Your task to perform on an android device: change the upload size in google photos Image 0: 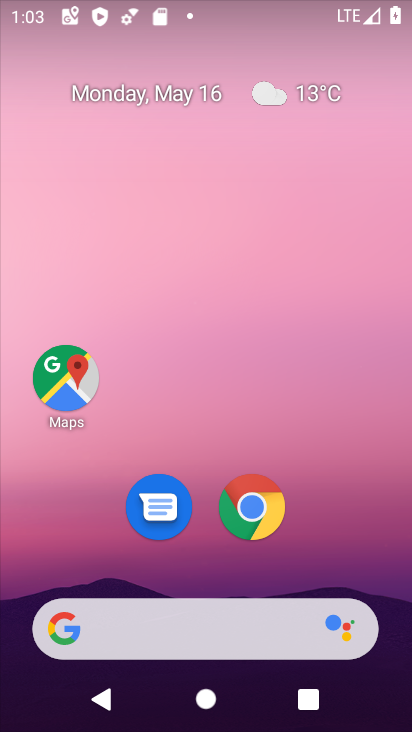
Step 0: drag from (336, 536) to (284, 52)
Your task to perform on an android device: change the upload size in google photos Image 1: 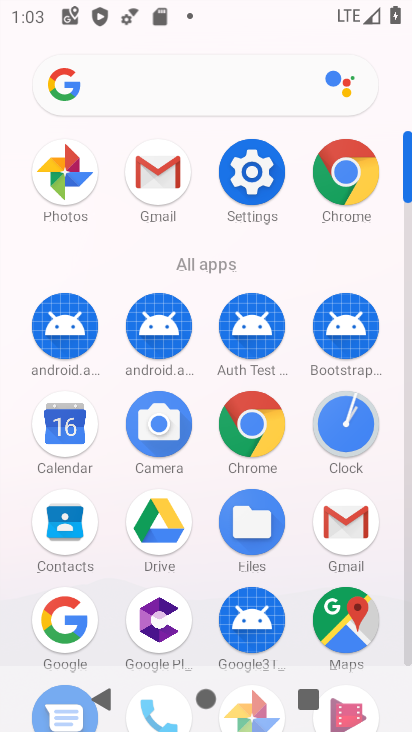
Step 1: click (80, 239)
Your task to perform on an android device: change the upload size in google photos Image 2: 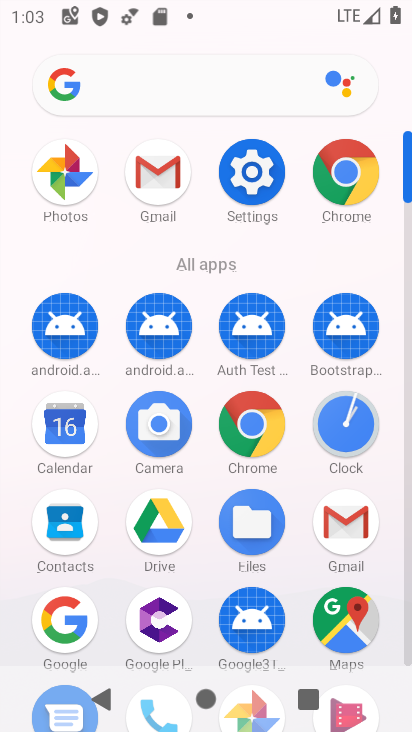
Step 2: click (74, 188)
Your task to perform on an android device: change the upload size in google photos Image 3: 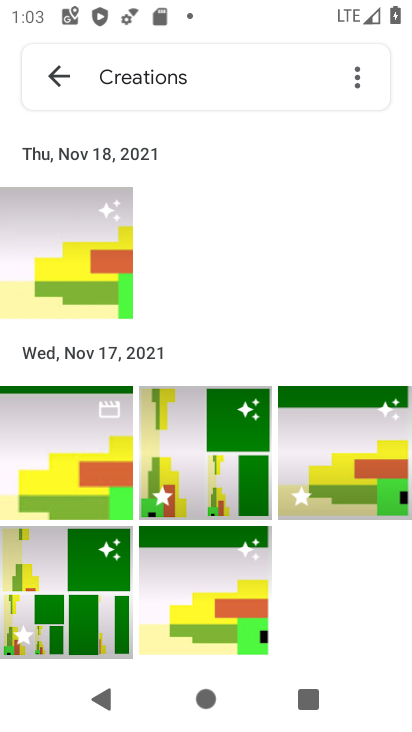
Step 3: click (65, 71)
Your task to perform on an android device: change the upload size in google photos Image 4: 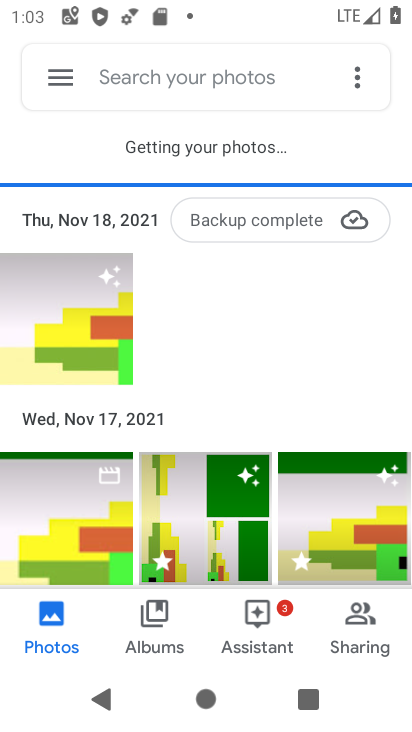
Step 4: click (59, 73)
Your task to perform on an android device: change the upload size in google photos Image 5: 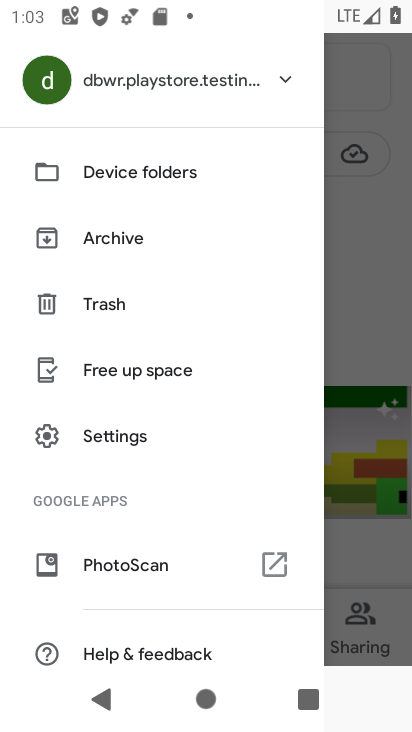
Step 5: click (172, 440)
Your task to perform on an android device: change the upload size in google photos Image 6: 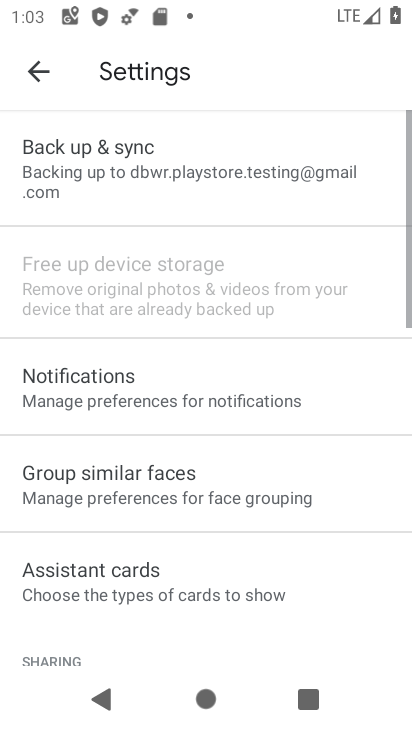
Step 6: click (158, 132)
Your task to perform on an android device: change the upload size in google photos Image 7: 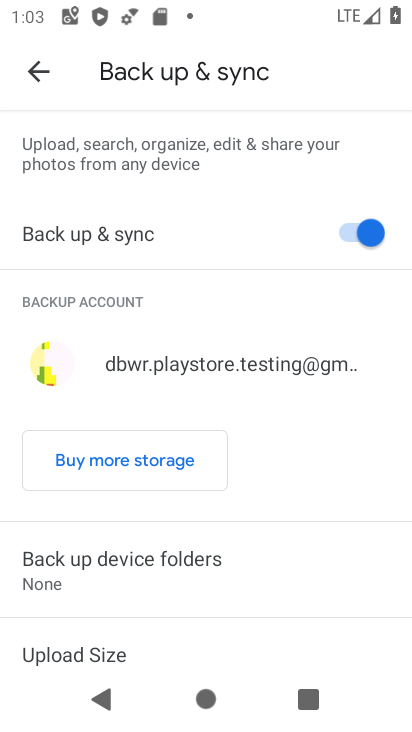
Step 7: drag from (151, 569) to (181, 281)
Your task to perform on an android device: change the upload size in google photos Image 8: 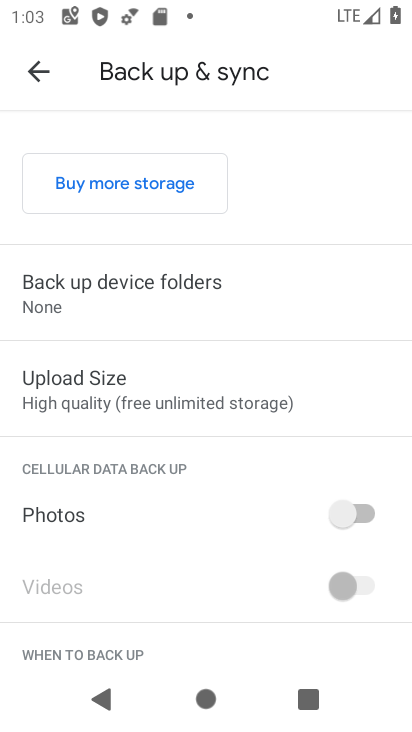
Step 8: click (151, 385)
Your task to perform on an android device: change the upload size in google photos Image 9: 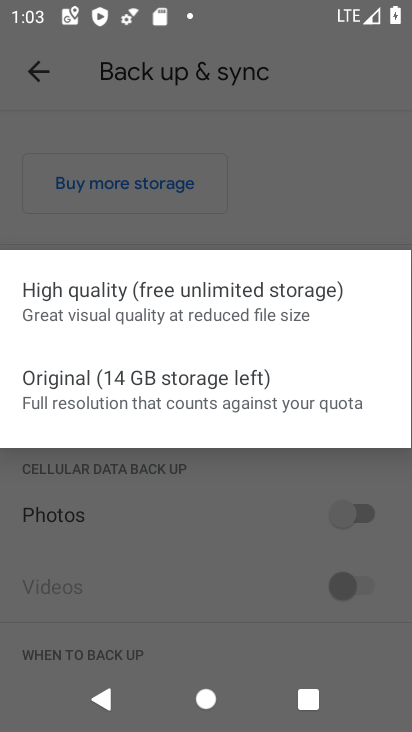
Step 9: click (124, 379)
Your task to perform on an android device: change the upload size in google photos Image 10: 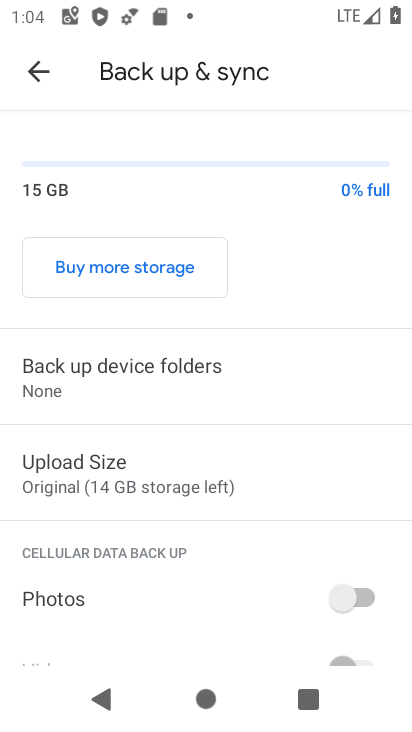
Step 10: task complete